Your task to perform on an android device: Search for sushi restaurants on Maps Image 0: 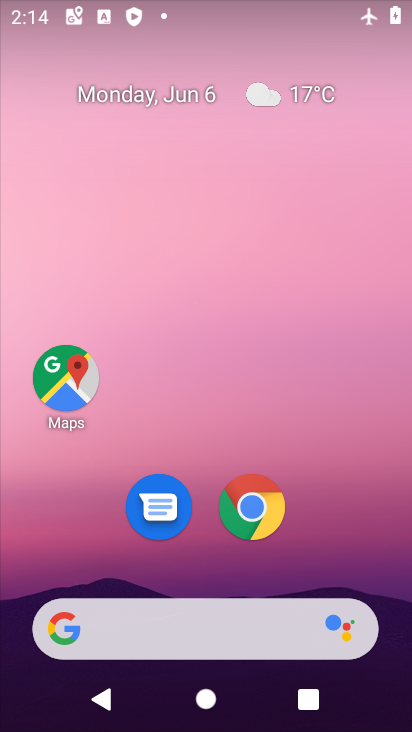
Step 0: click (81, 387)
Your task to perform on an android device: Search for sushi restaurants on Maps Image 1: 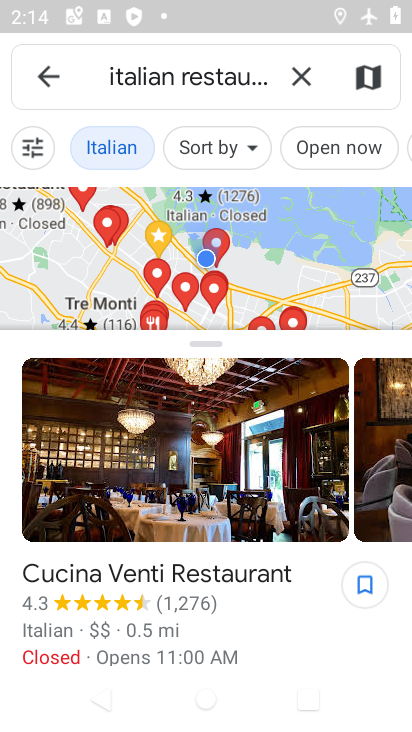
Step 1: click (306, 72)
Your task to perform on an android device: Search for sushi restaurants on Maps Image 2: 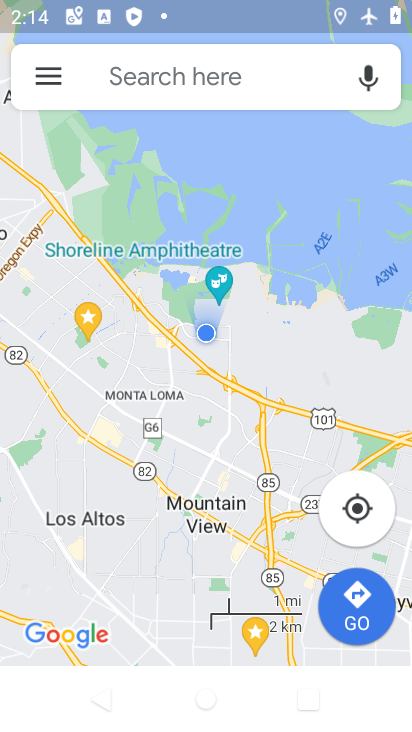
Step 2: click (211, 66)
Your task to perform on an android device: Search for sushi restaurants on Maps Image 3: 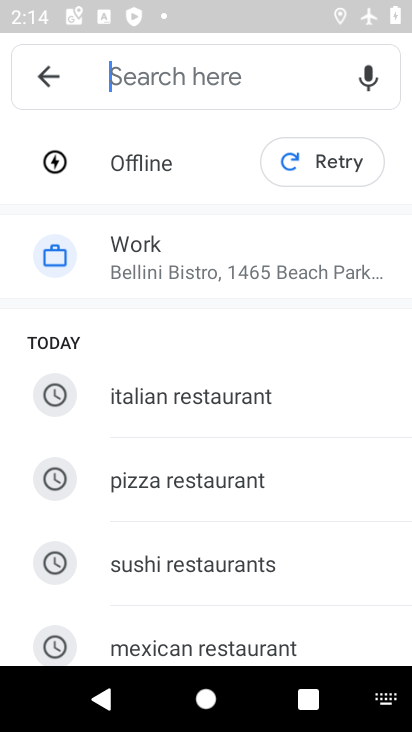
Step 3: click (226, 559)
Your task to perform on an android device: Search for sushi restaurants on Maps Image 4: 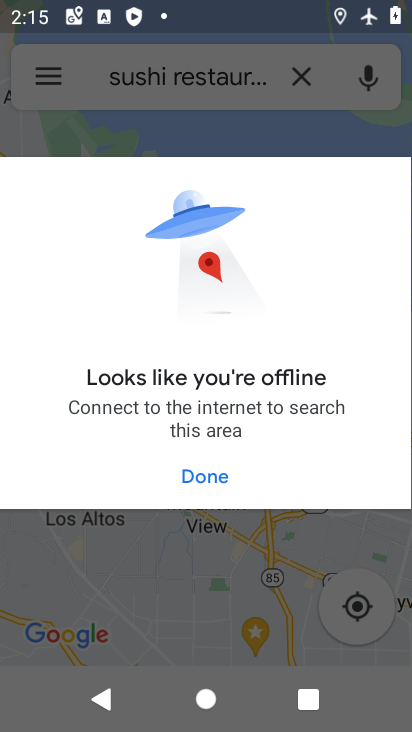
Step 4: task complete